Your task to perform on an android device: see tabs open on other devices in the chrome app Image 0: 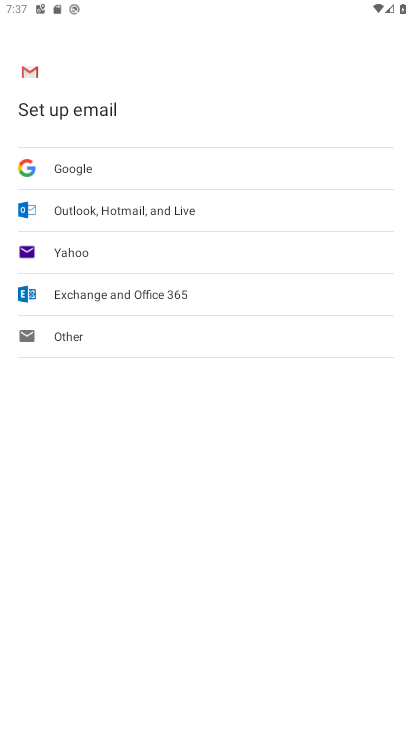
Step 0: press home button
Your task to perform on an android device: see tabs open on other devices in the chrome app Image 1: 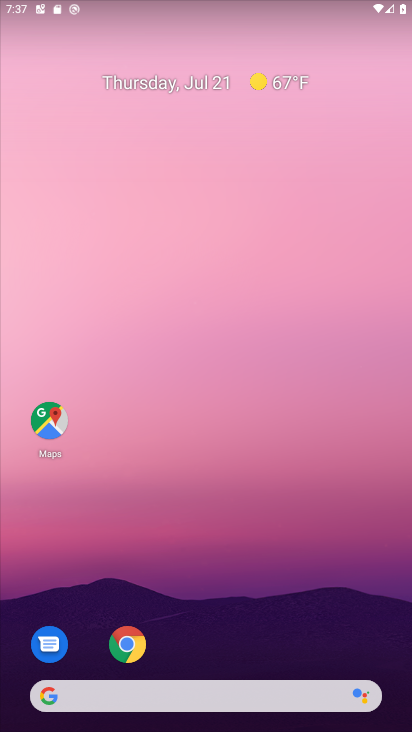
Step 1: drag from (219, 663) to (246, 200)
Your task to perform on an android device: see tabs open on other devices in the chrome app Image 2: 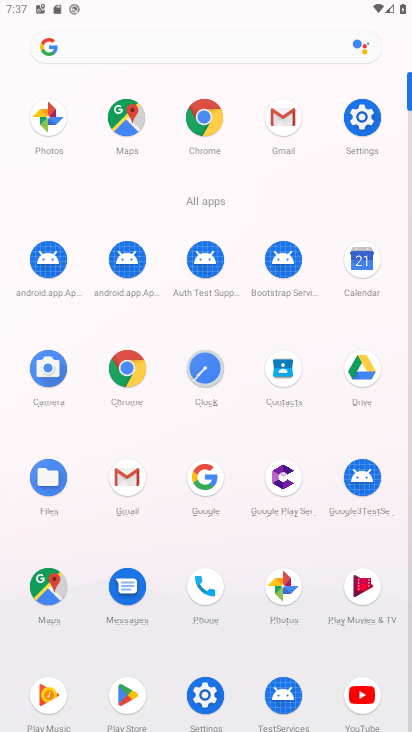
Step 2: click (127, 384)
Your task to perform on an android device: see tabs open on other devices in the chrome app Image 3: 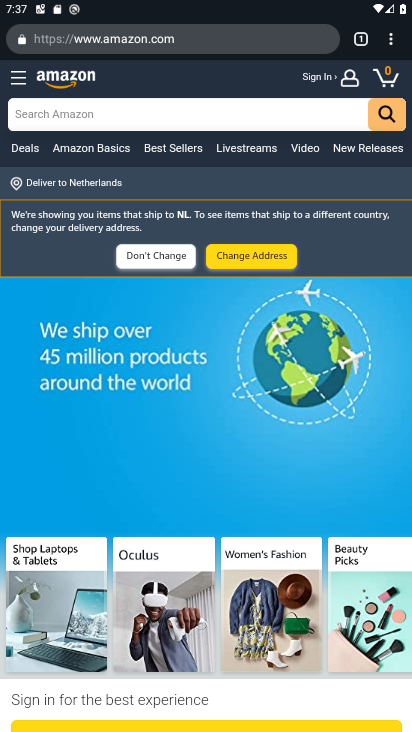
Step 3: click (391, 38)
Your task to perform on an android device: see tabs open on other devices in the chrome app Image 4: 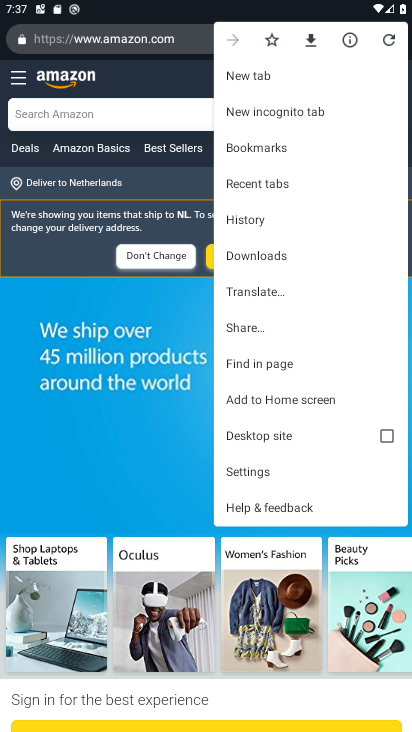
Step 4: click (269, 181)
Your task to perform on an android device: see tabs open on other devices in the chrome app Image 5: 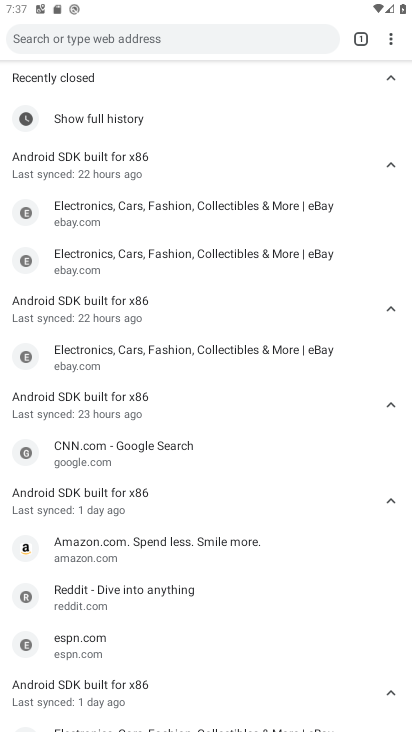
Step 5: task complete